Your task to perform on an android device: Find coffee shops on Maps Image 0: 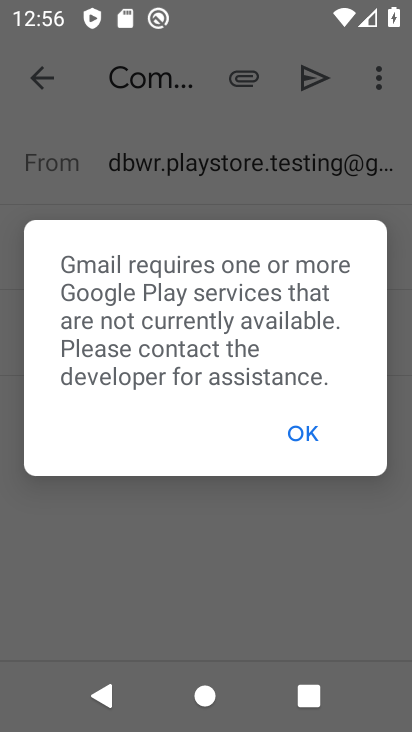
Step 0: press home button
Your task to perform on an android device: Find coffee shops on Maps Image 1: 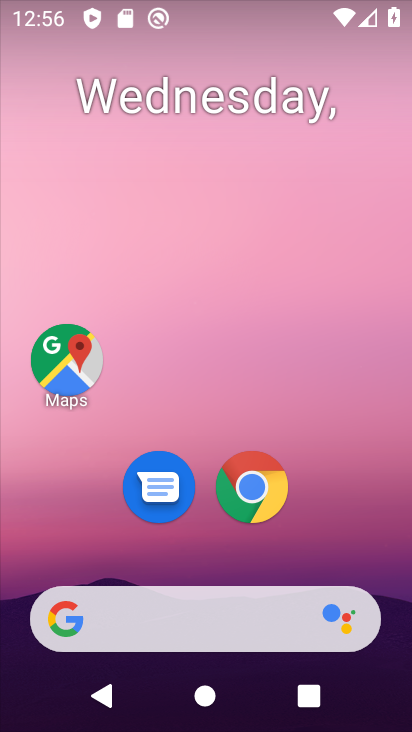
Step 1: drag from (252, 408) to (317, 4)
Your task to perform on an android device: Find coffee shops on Maps Image 2: 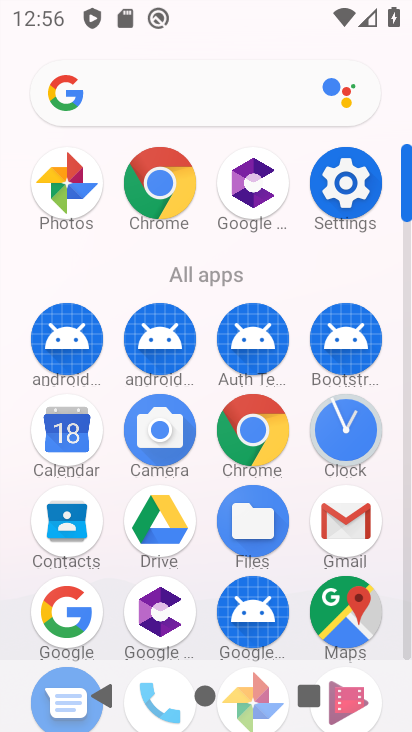
Step 2: click (323, 598)
Your task to perform on an android device: Find coffee shops on Maps Image 3: 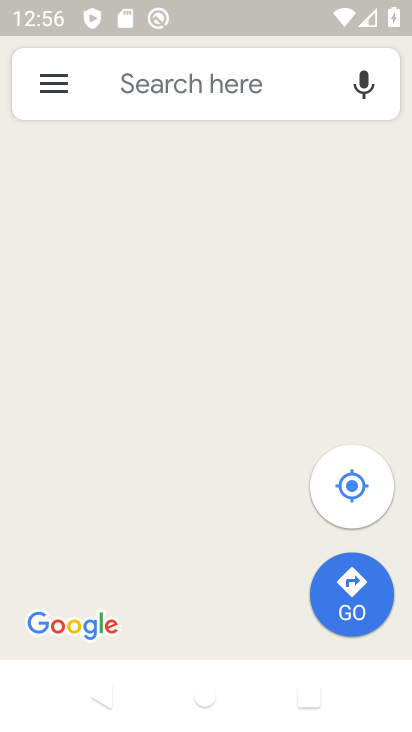
Step 3: click (180, 103)
Your task to perform on an android device: Find coffee shops on Maps Image 4: 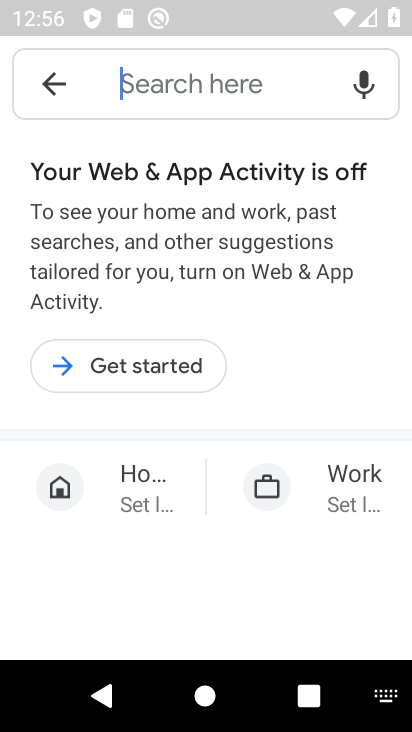
Step 4: type "coffee shops"
Your task to perform on an android device: Find coffee shops on Maps Image 5: 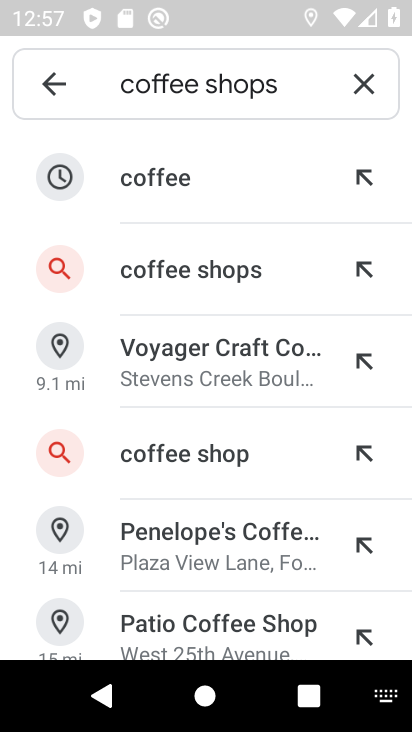
Step 5: click (190, 268)
Your task to perform on an android device: Find coffee shops on Maps Image 6: 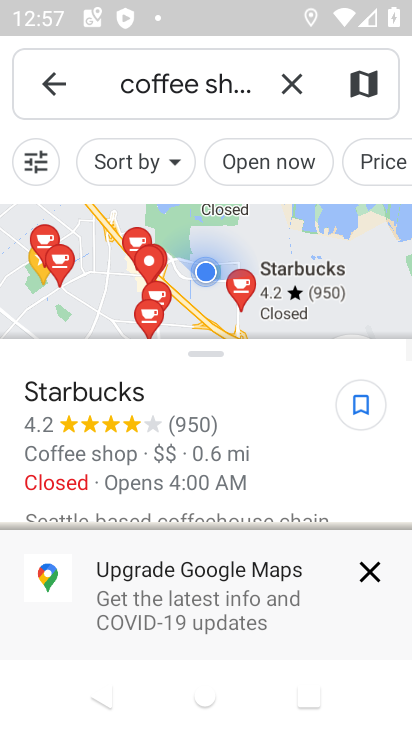
Step 6: task complete